Your task to perform on an android device: change the clock display to digital Image 0: 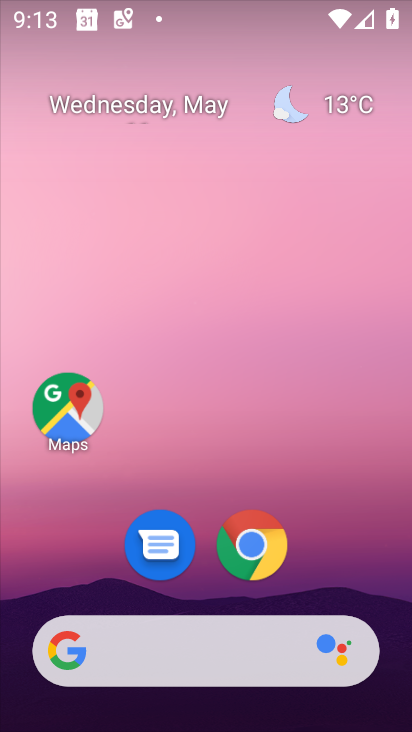
Step 0: drag from (295, 547) to (181, 2)
Your task to perform on an android device: change the clock display to digital Image 1: 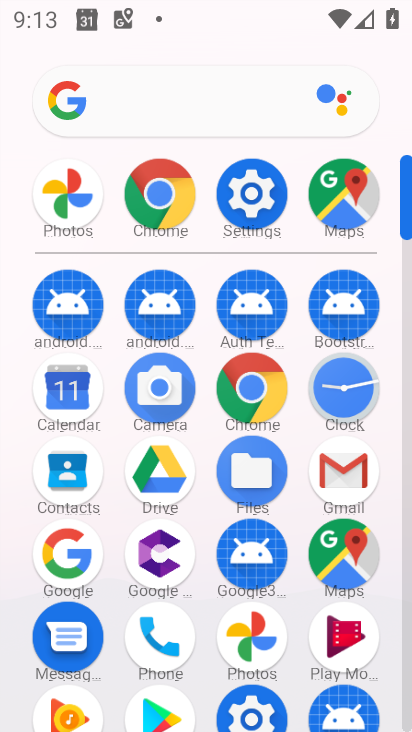
Step 1: drag from (7, 661) to (7, 404)
Your task to perform on an android device: change the clock display to digital Image 2: 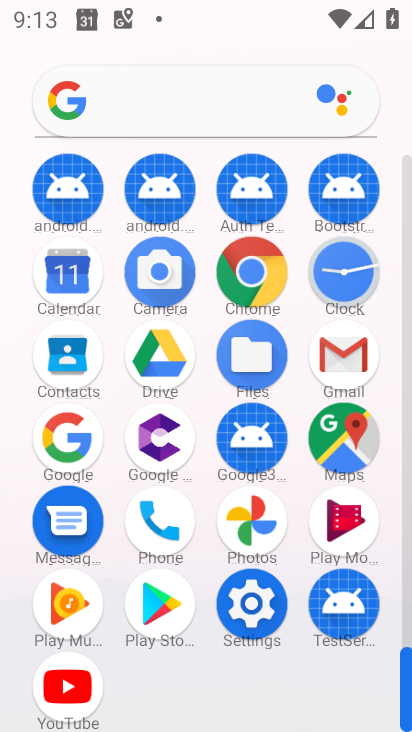
Step 2: click (342, 270)
Your task to perform on an android device: change the clock display to digital Image 3: 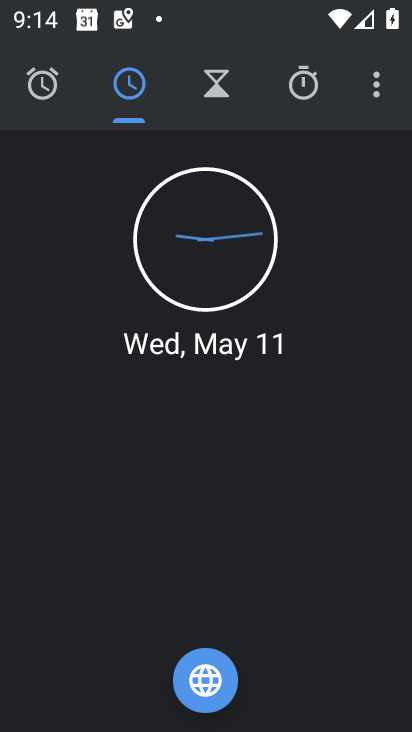
Step 3: drag from (376, 95) to (301, 168)
Your task to perform on an android device: change the clock display to digital Image 4: 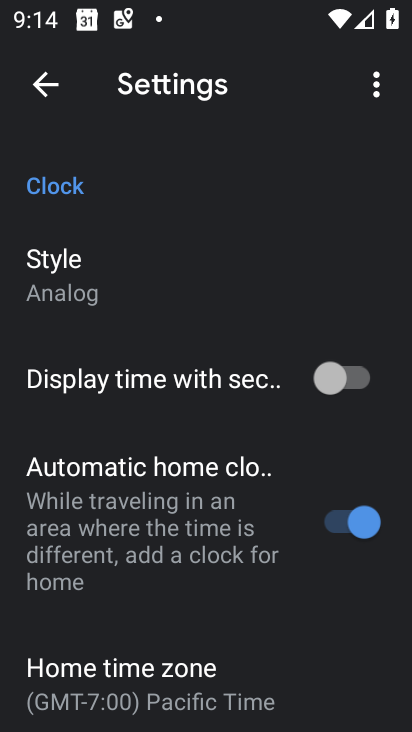
Step 4: click (59, 286)
Your task to perform on an android device: change the clock display to digital Image 5: 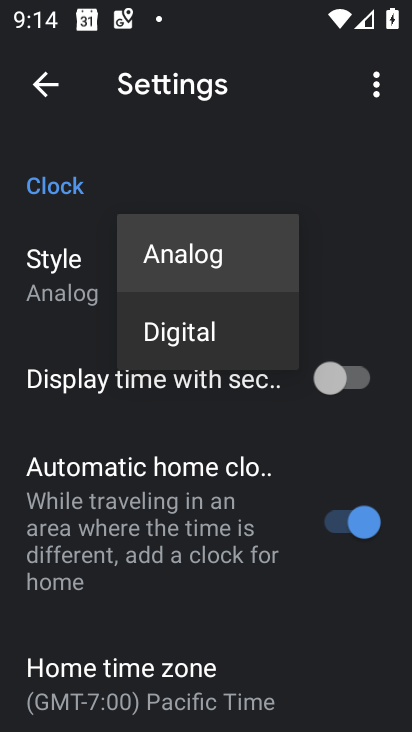
Step 5: click (186, 340)
Your task to perform on an android device: change the clock display to digital Image 6: 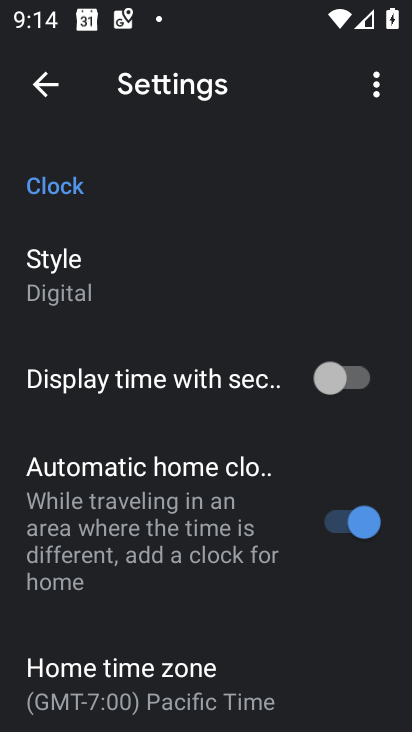
Step 6: task complete